Your task to perform on an android device: toggle improve location accuracy Image 0: 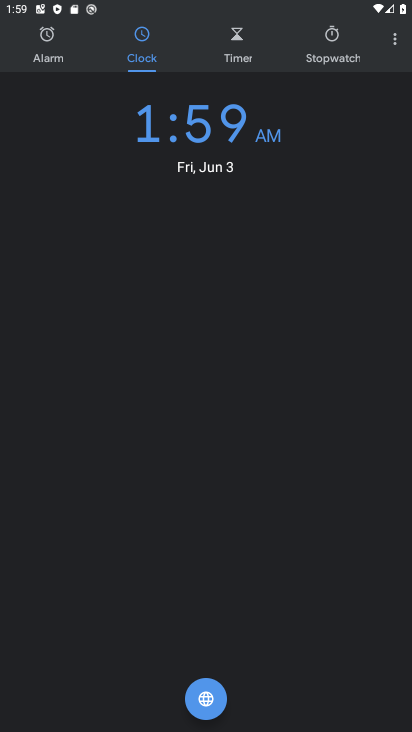
Step 0: press home button
Your task to perform on an android device: toggle improve location accuracy Image 1: 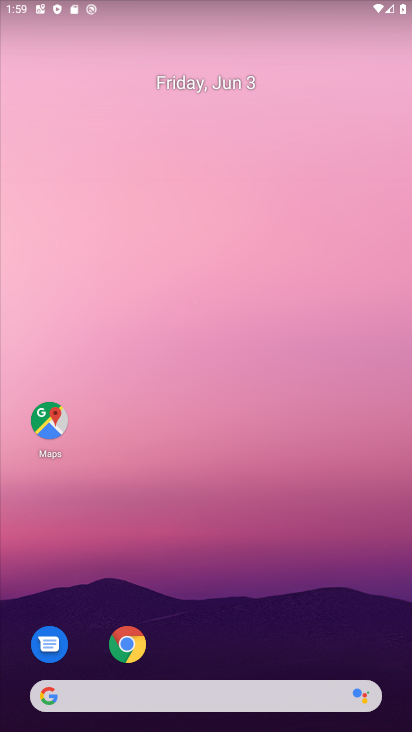
Step 1: drag from (216, 617) to (200, 224)
Your task to perform on an android device: toggle improve location accuracy Image 2: 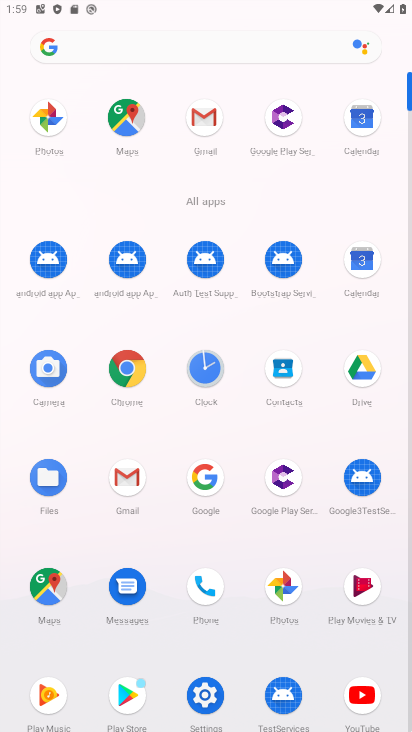
Step 2: click (202, 687)
Your task to perform on an android device: toggle improve location accuracy Image 3: 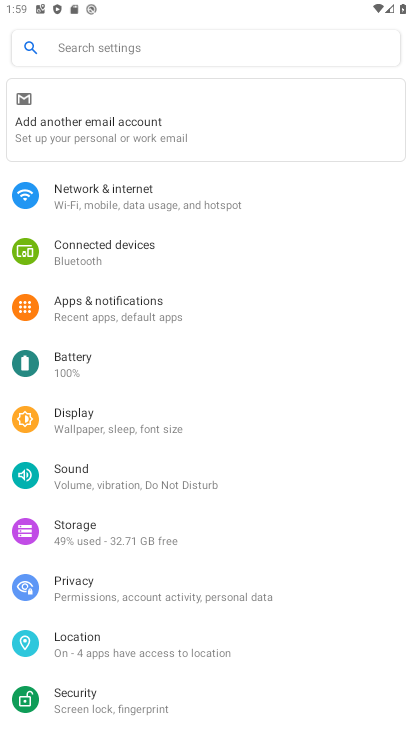
Step 3: drag from (199, 576) to (172, 350)
Your task to perform on an android device: toggle improve location accuracy Image 4: 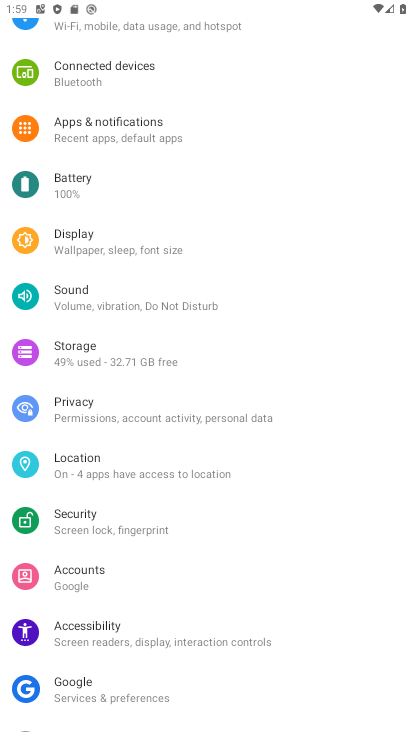
Step 4: click (123, 468)
Your task to perform on an android device: toggle improve location accuracy Image 5: 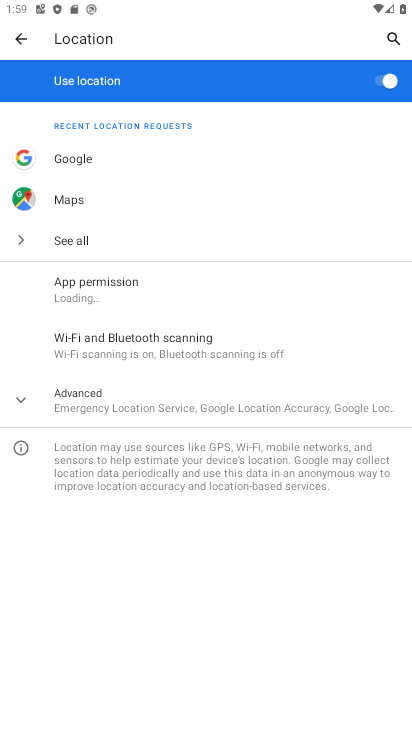
Step 5: click (142, 398)
Your task to perform on an android device: toggle improve location accuracy Image 6: 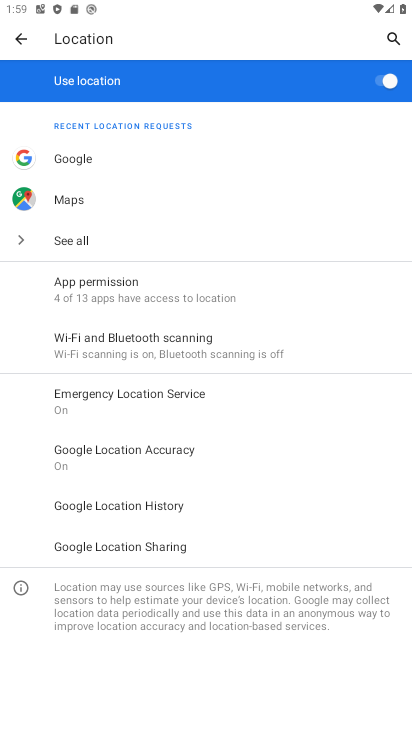
Step 6: click (183, 454)
Your task to perform on an android device: toggle improve location accuracy Image 7: 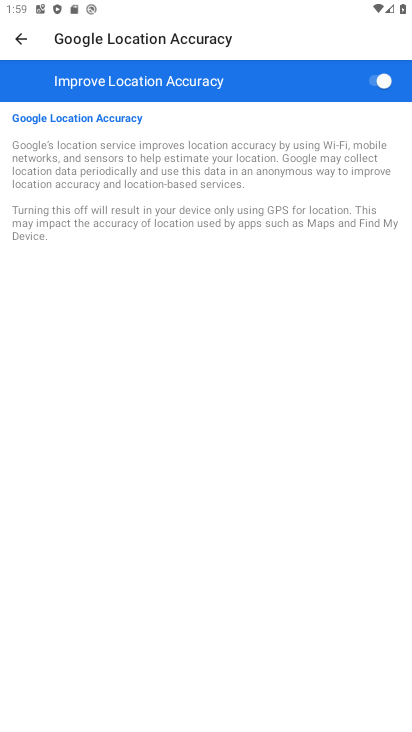
Step 7: click (372, 87)
Your task to perform on an android device: toggle improve location accuracy Image 8: 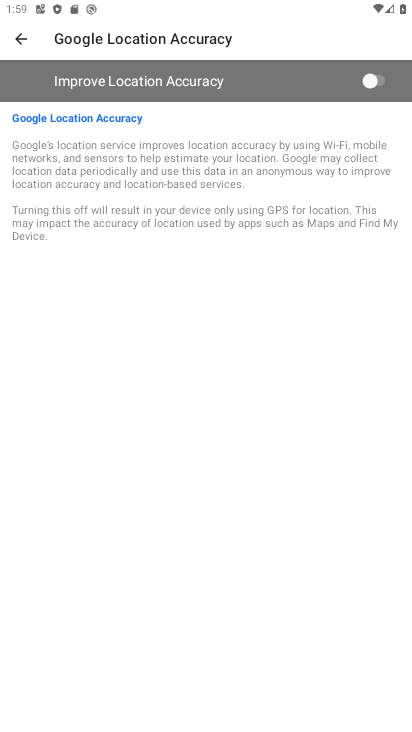
Step 8: task complete